Your task to perform on an android device: search for starred emails in the gmail app Image 0: 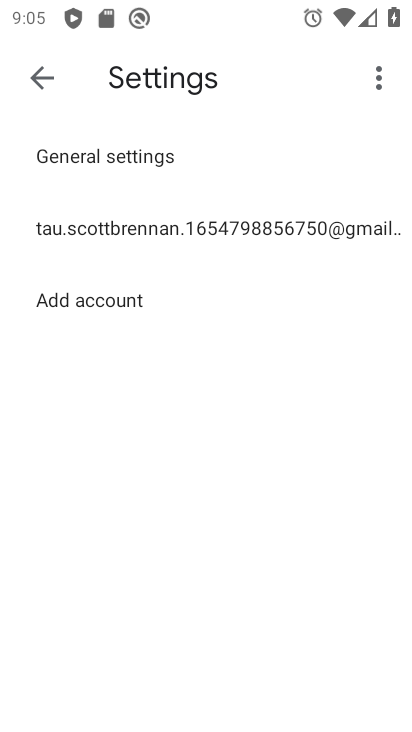
Step 0: press home button
Your task to perform on an android device: search for starred emails in the gmail app Image 1: 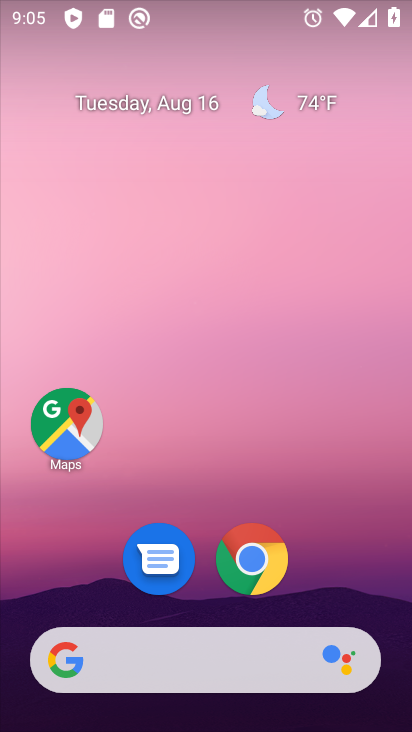
Step 1: drag from (174, 672) to (205, 112)
Your task to perform on an android device: search for starred emails in the gmail app Image 2: 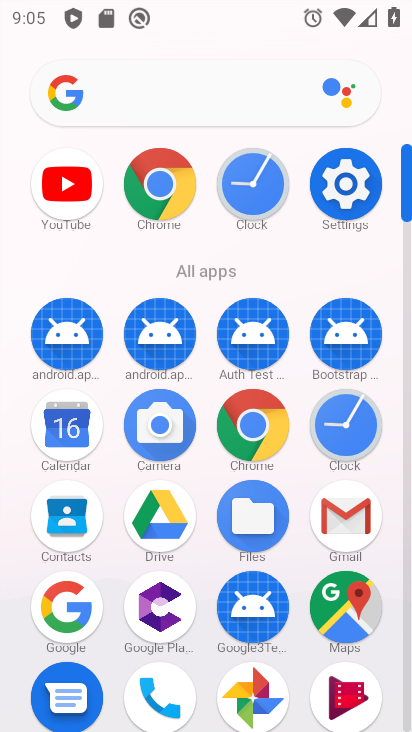
Step 2: click (346, 514)
Your task to perform on an android device: search for starred emails in the gmail app Image 3: 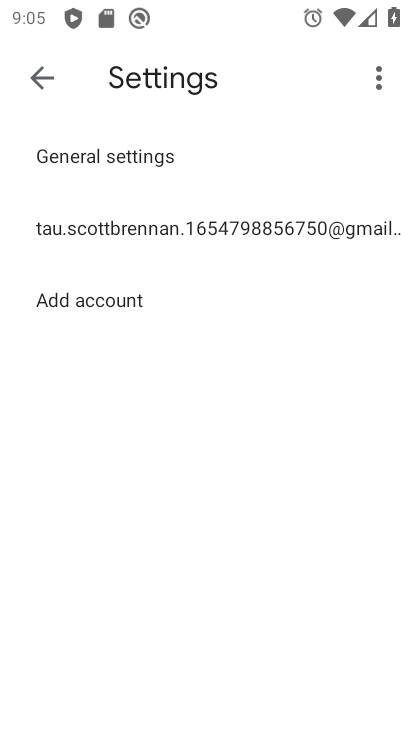
Step 3: press back button
Your task to perform on an android device: search for starred emails in the gmail app Image 4: 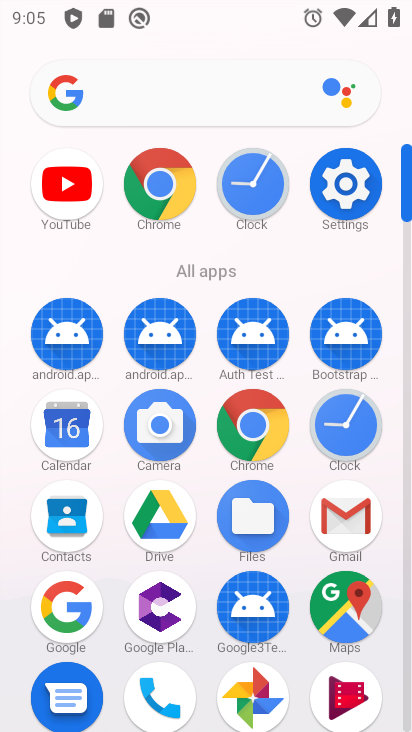
Step 4: click (343, 509)
Your task to perform on an android device: search for starred emails in the gmail app Image 5: 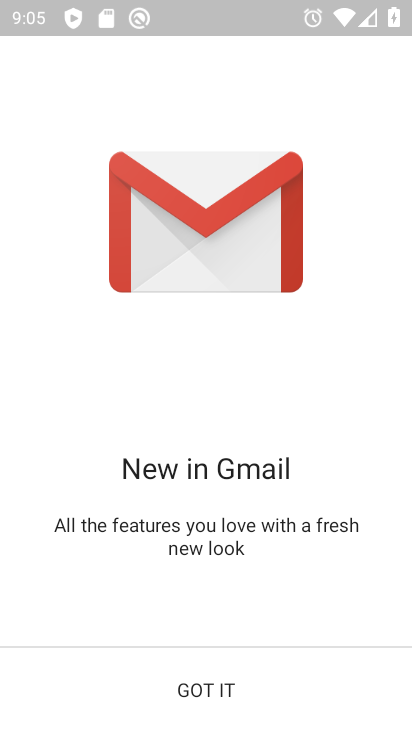
Step 5: click (213, 685)
Your task to perform on an android device: search for starred emails in the gmail app Image 6: 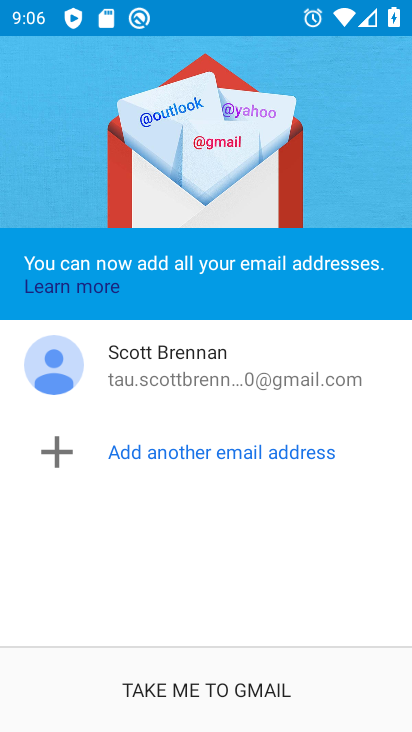
Step 6: click (210, 692)
Your task to perform on an android device: search for starred emails in the gmail app Image 7: 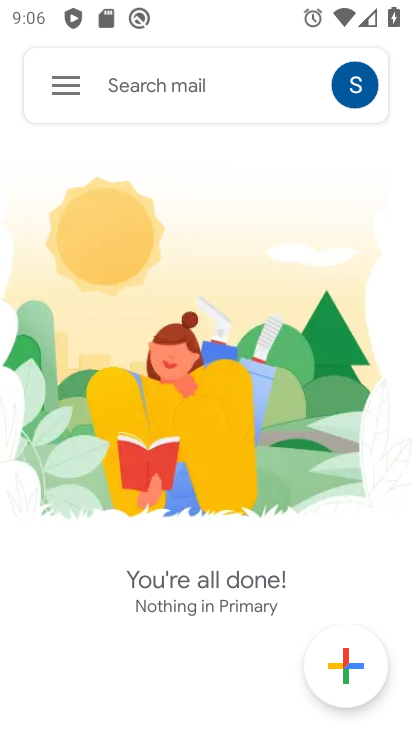
Step 7: click (55, 85)
Your task to perform on an android device: search for starred emails in the gmail app Image 8: 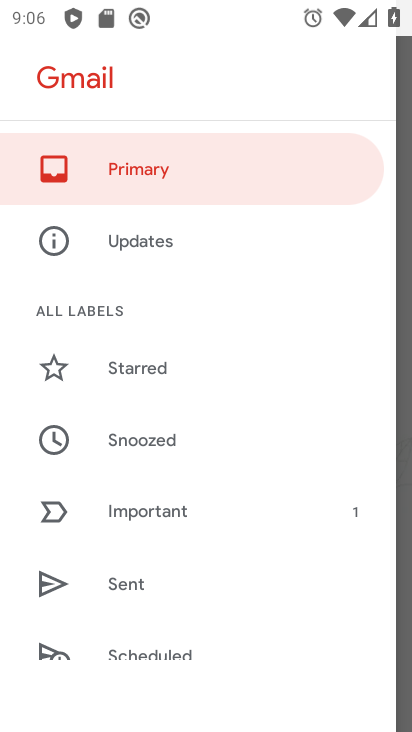
Step 8: drag from (143, 548) to (164, 376)
Your task to perform on an android device: search for starred emails in the gmail app Image 9: 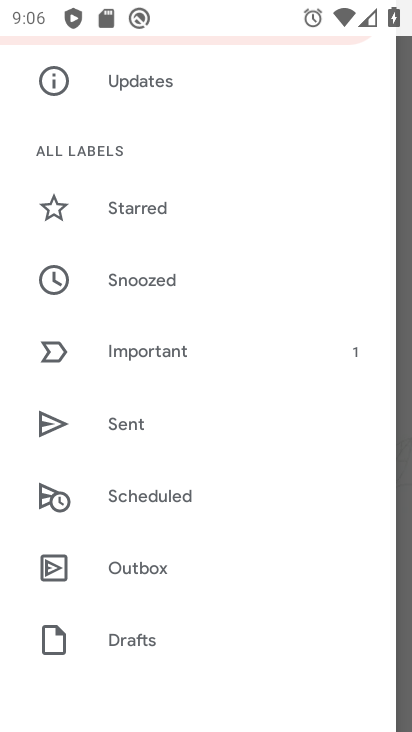
Step 9: drag from (182, 576) to (213, 434)
Your task to perform on an android device: search for starred emails in the gmail app Image 10: 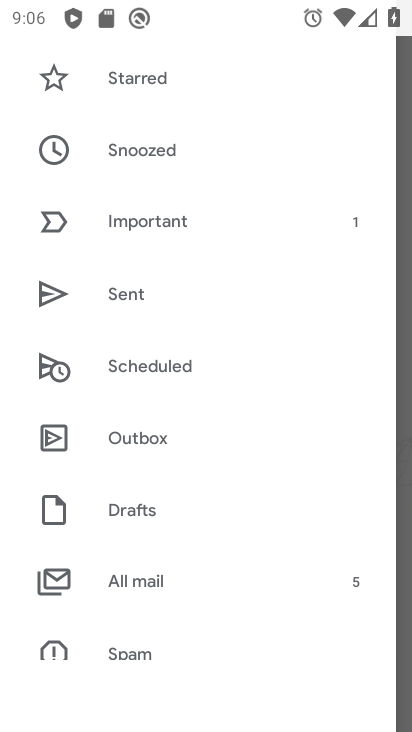
Step 10: click (159, 577)
Your task to perform on an android device: search for starred emails in the gmail app Image 11: 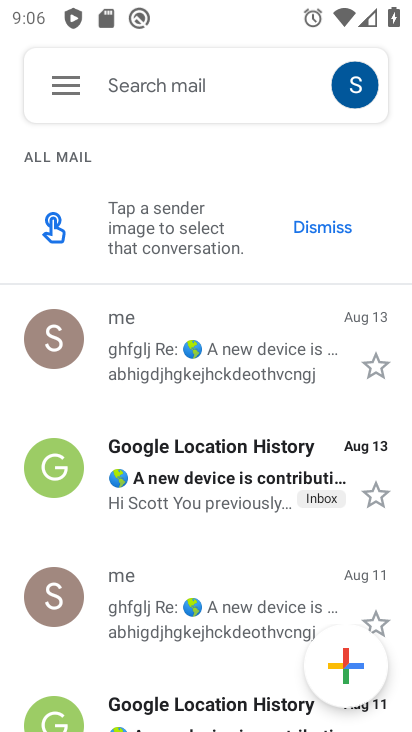
Step 11: task complete